Your task to perform on an android device: Go to CNN.com Image 0: 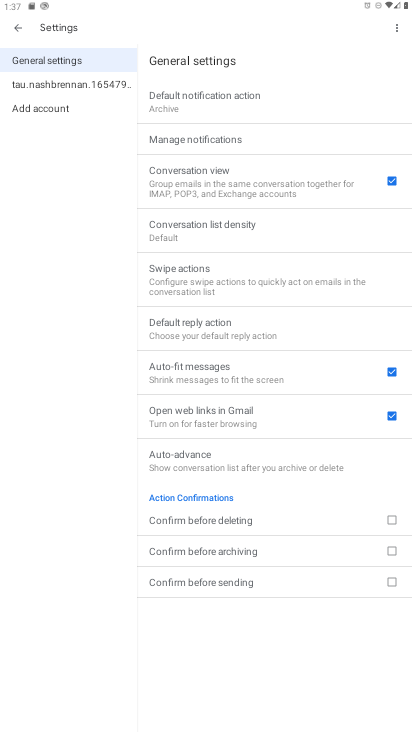
Step 0: press home button
Your task to perform on an android device: Go to CNN.com Image 1: 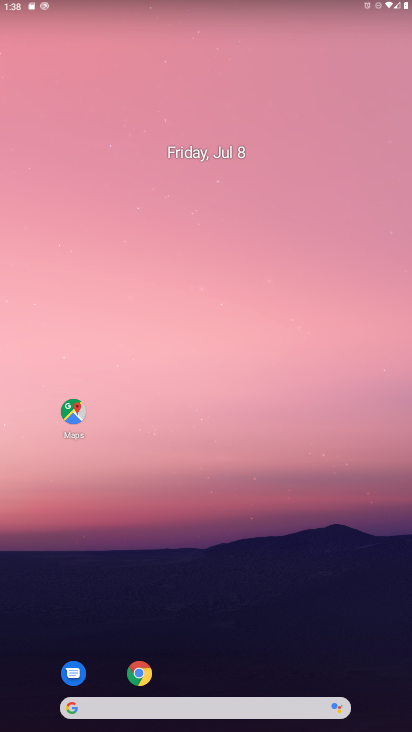
Step 1: click (144, 672)
Your task to perform on an android device: Go to CNN.com Image 2: 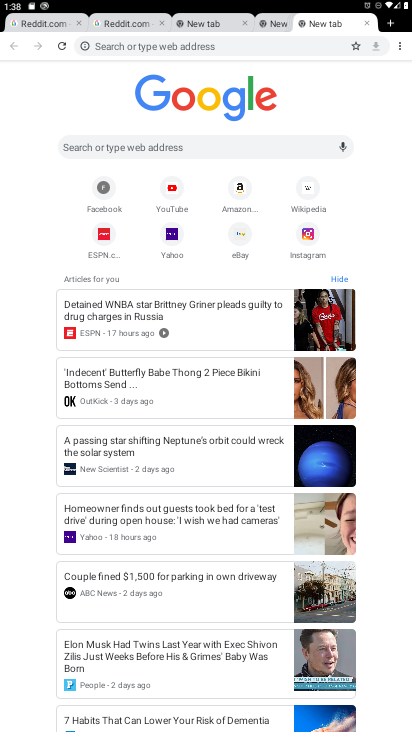
Step 2: click (177, 147)
Your task to perform on an android device: Go to CNN.com Image 3: 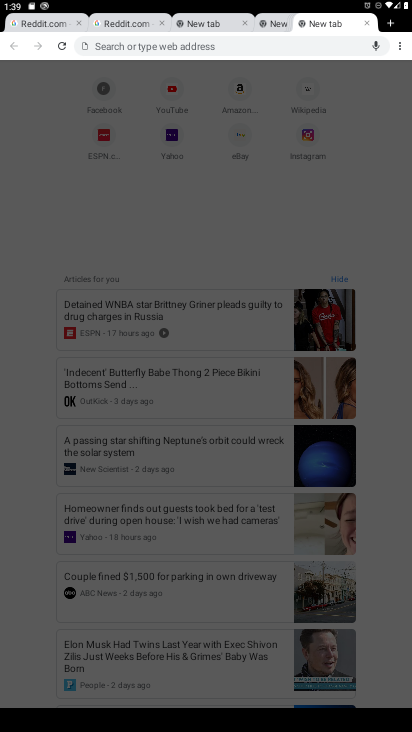
Step 3: type "CNN.com"
Your task to perform on an android device: Go to CNN.com Image 4: 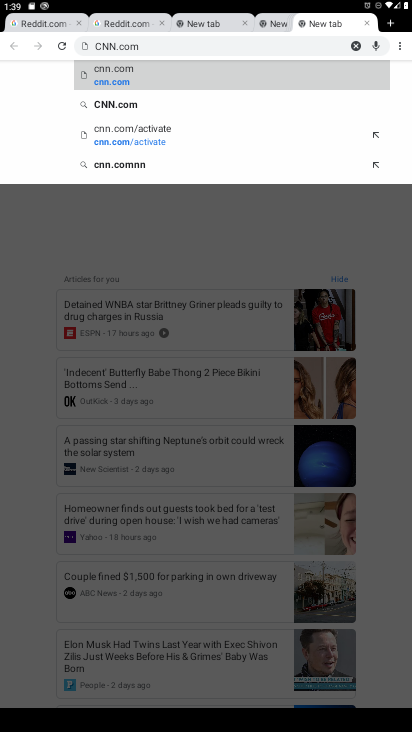
Step 4: click (121, 107)
Your task to perform on an android device: Go to CNN.com Image 5: 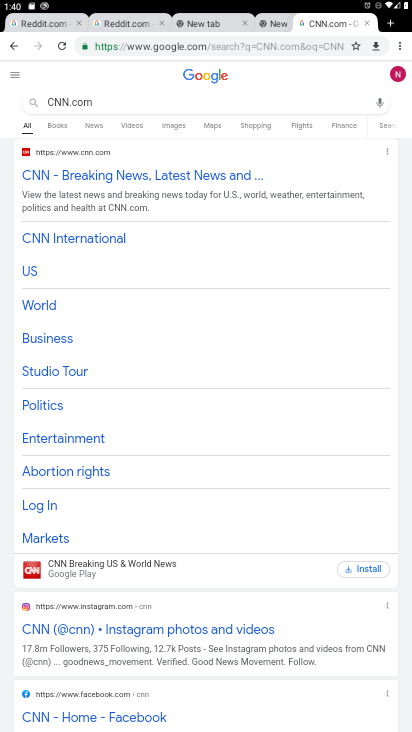
Step 5: task complete